Your task to perform on an android device: Search for seafood restaurants on Google Maps Image 0: 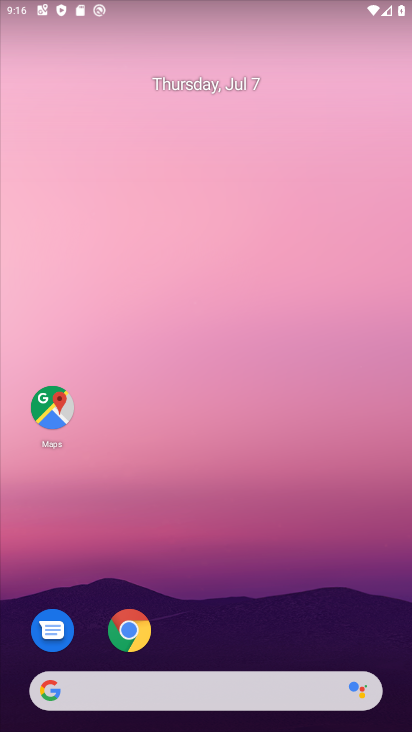
Step 0: drag from (201, 640) to (383, 524)
Your task to perform on an android device: Search for seafood restaurants on Google Maps Image 1: 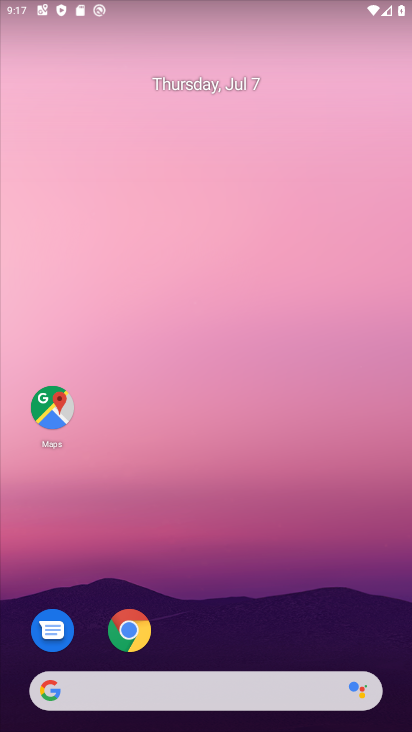
Step 1: drag from (233, 640) to (268, 255)
Your task to perform on an android device: Search for seafood restaurants on Google Maps Image 2: 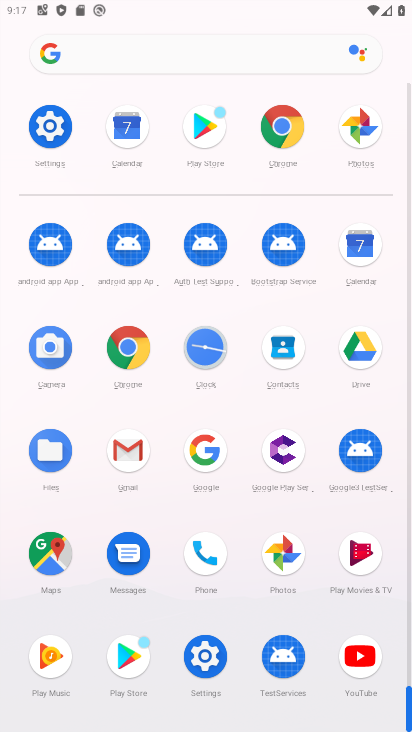
Step 2: click (54, 547)
Your task to perform on an android device: Search for seafood restaurants on Google Maps Image 3: 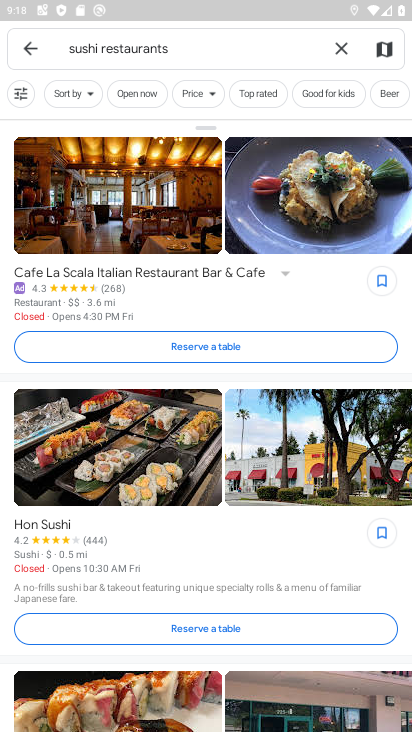
Step 3: click (281, 160)
Your task to perform on an android device: Search for seafood restaurants on Google Maps Image 4: 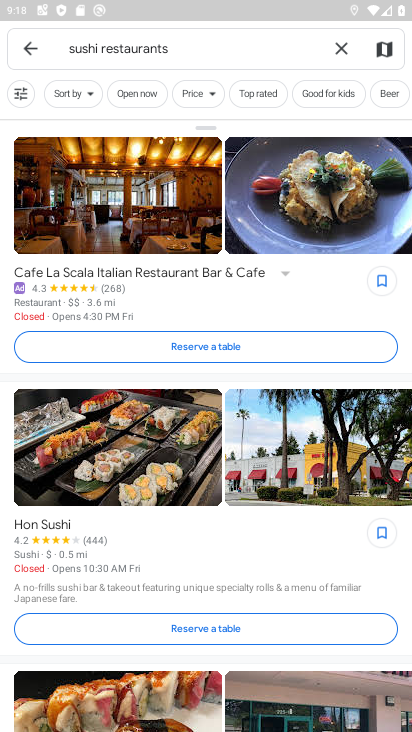
Step 4: drag from (286, 233) to (306, 640)
Your task to perform on an android device: Search for seafood restaurants on Google Maps Image 5: 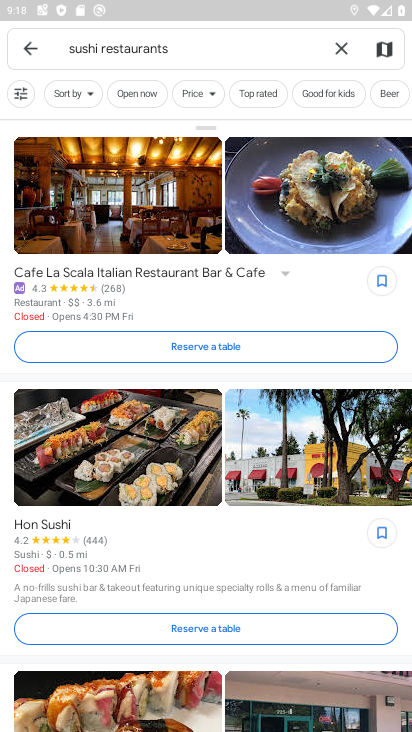
Step 5: click (340, 45)
Your task to perform on an android device: Search for seafood restaurants on Google Maps Image 6: 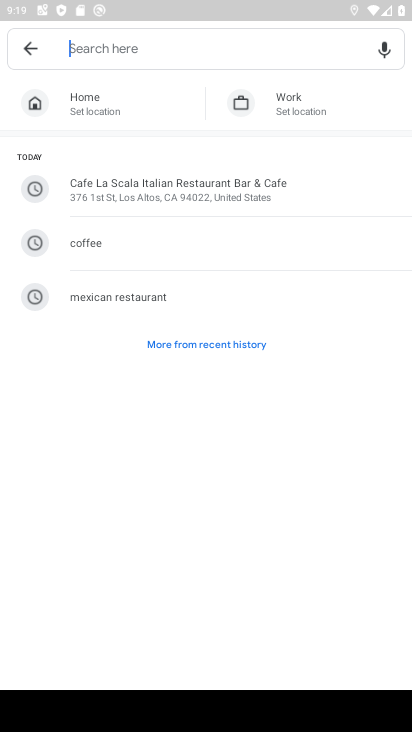
Step 6: click (138, 49)
Your task to perform on an android device: Search for seafood restaurants on Google Maps Image 7: 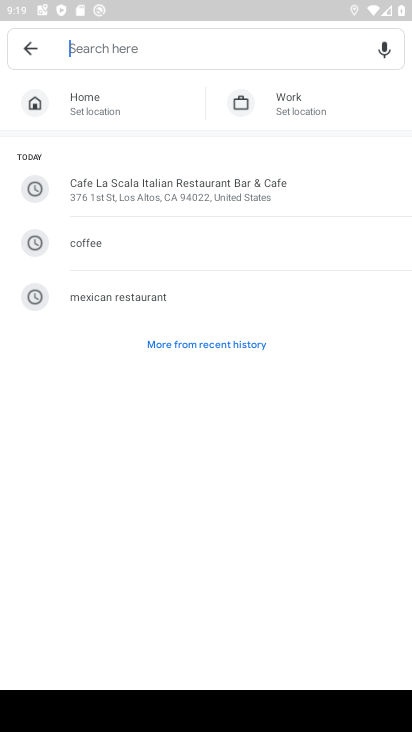
Step 7: type "seafood restaurants"
Your task to perform on an android device: Search for seafood restaurants on Google Maps Image 8: 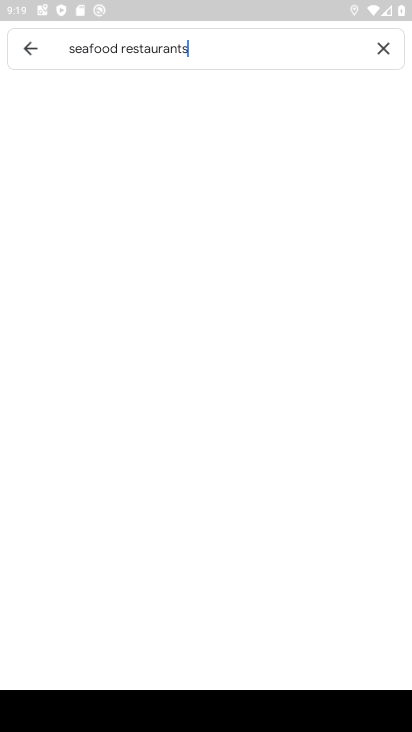
Step 8: type ""
Your task to perform on an android device: Search for seafood restaurants on Google Maps Image 9: 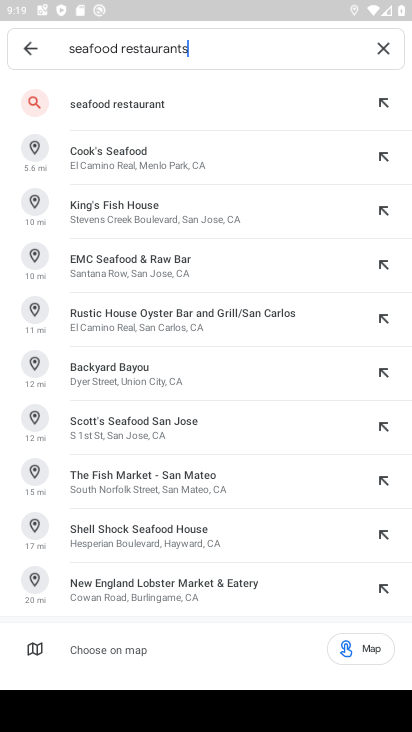
Step 9: click (155, 106)
Your task to perform on an android device: Search for seafood restaurants on Google Maps Image 10: 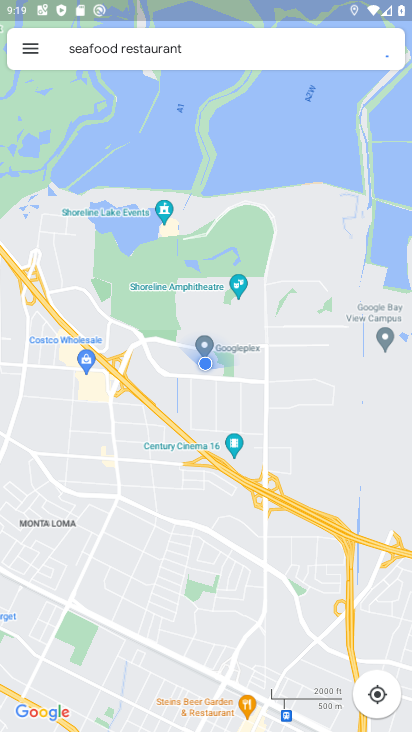
Step 10: drag from (150, 472) to (223, 282)
Your task to perform on an android device: Search for seafood restaurants on Google Maps Image 11: 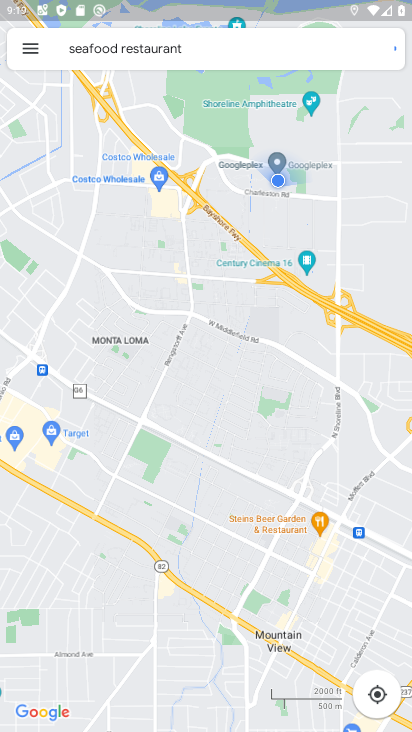
Step 11: drag from (258, 272) to (275, 148)
Your task to perform on an android device: Search for seafood restaurants on Google Maps Image 12: 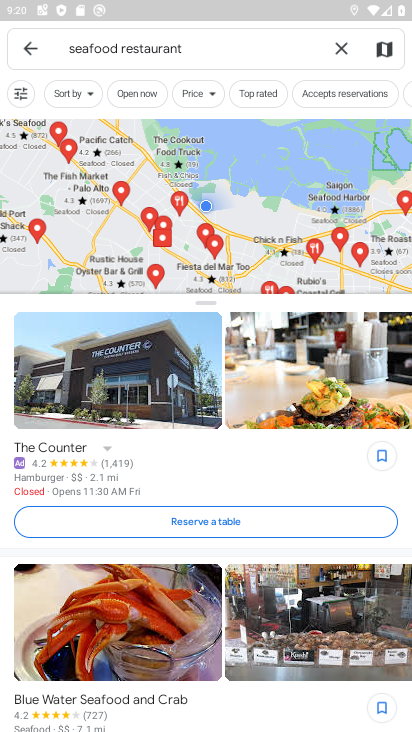
Step 12: drag from (244, 313) to (303, 647)
Your task to perform on an android device: Search for seafood restaurants on Google Maps Image 13: 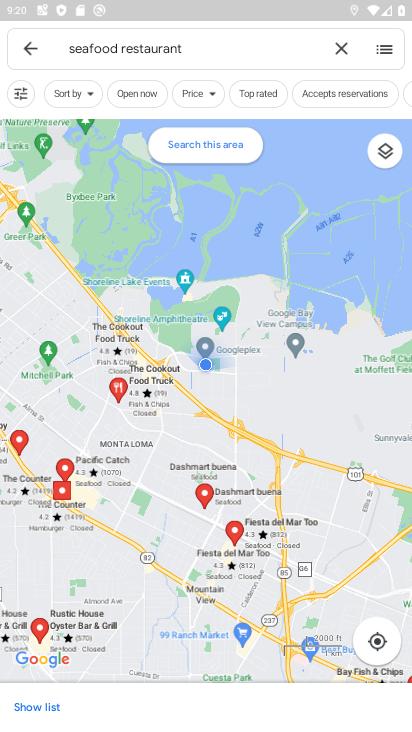
Step 13: click (187, 77)
Your task to perform on an android device: Search for seafood restaurants on Google Maps Image 14: 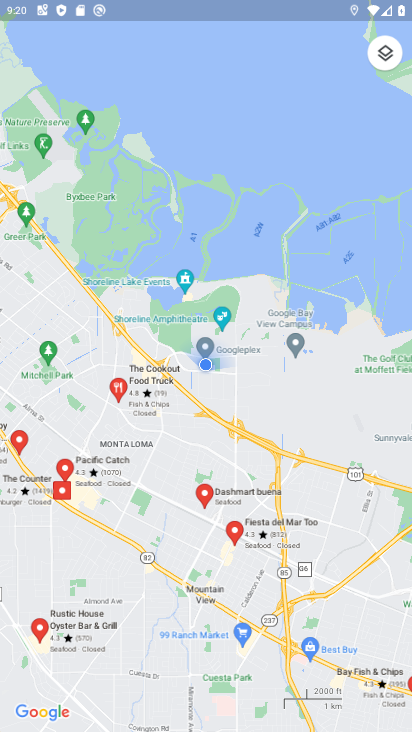
Step 14: task complete